Your task to perform on an android device: What is the recent news? Image 0: 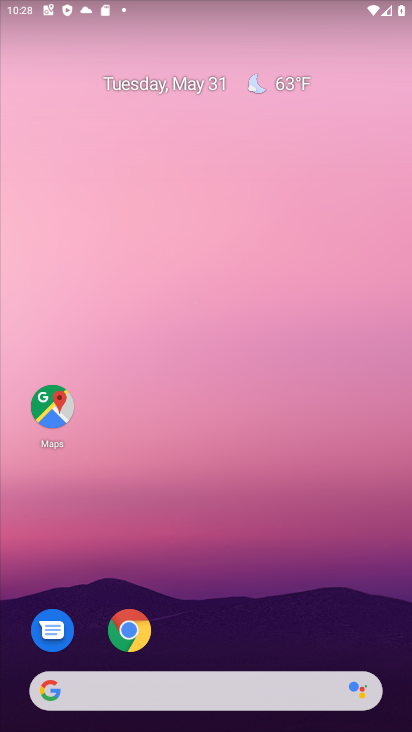
Step 0: drag from (244, 603) to (291, 178)
Your task to perform on an android device: What is the recent news? Image 1: 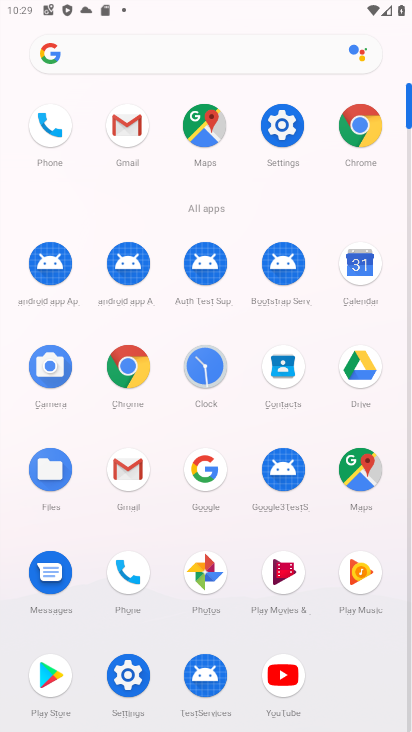
Step 1: click (129, 363)
Your task to perform on an android device: What is the recent news? Image 2: 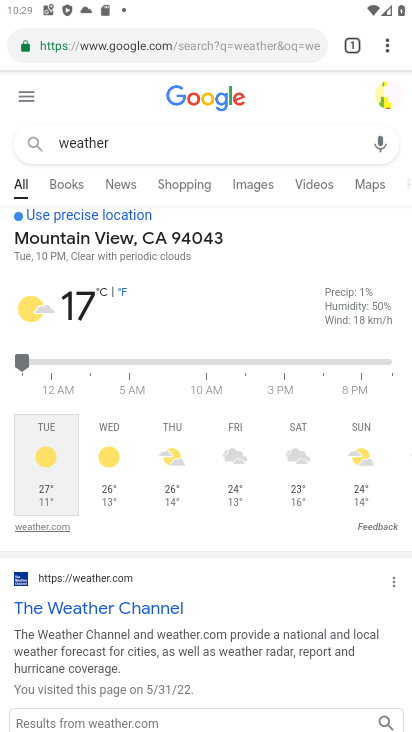
Step 2: click (218, 144)
Your task to perform on an android device: What is the recent news? Image 3: 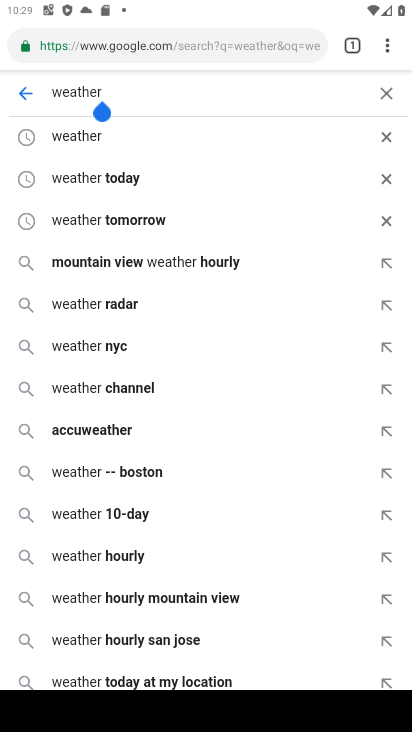
Step 3: click (199, 35)
Your task to perform on an android device: What is the recent news? Image 4: 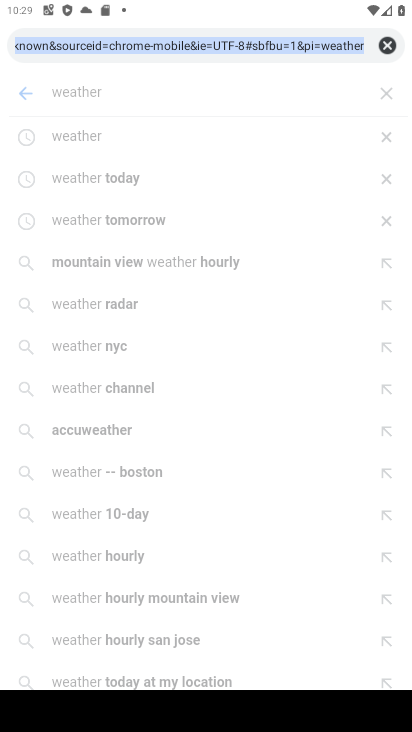
Step 4: type "news"
Your task to perform on an android device: What is the recent news? Image 5: 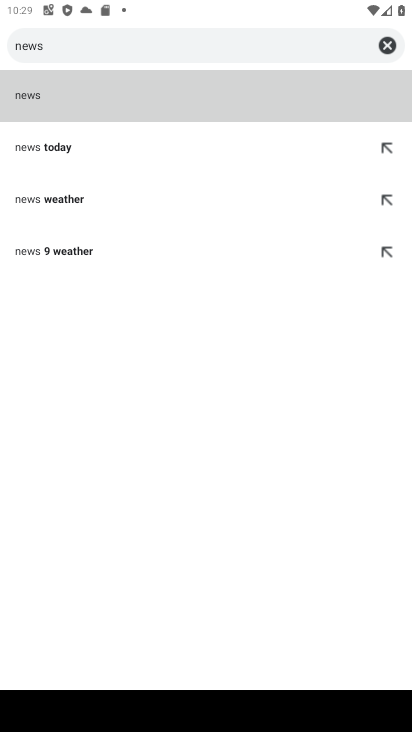
Step 5: click (35, 95)
Your task to perform on an android device: What is the recent news? Image 6: 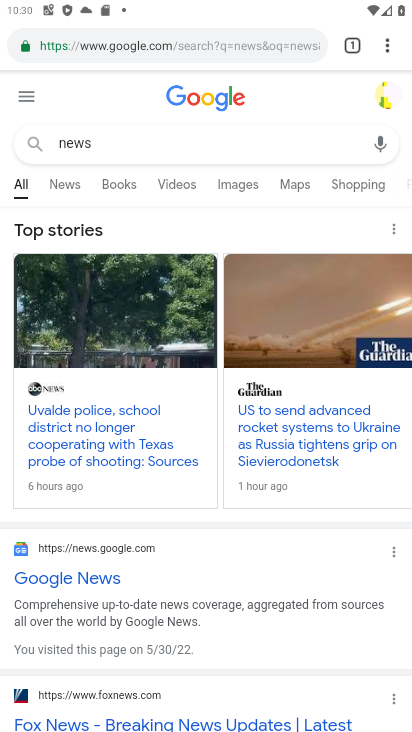
Step 6: click (81, 180)
Your task to perform on an android device: What is the recent news? Image 7: 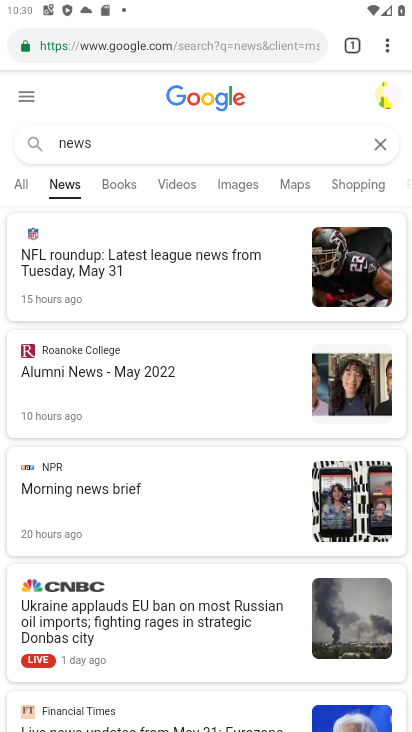
Step 7: task complete